Your task to perform on an android device: turn on priority inbox in the gmail app Image 0: 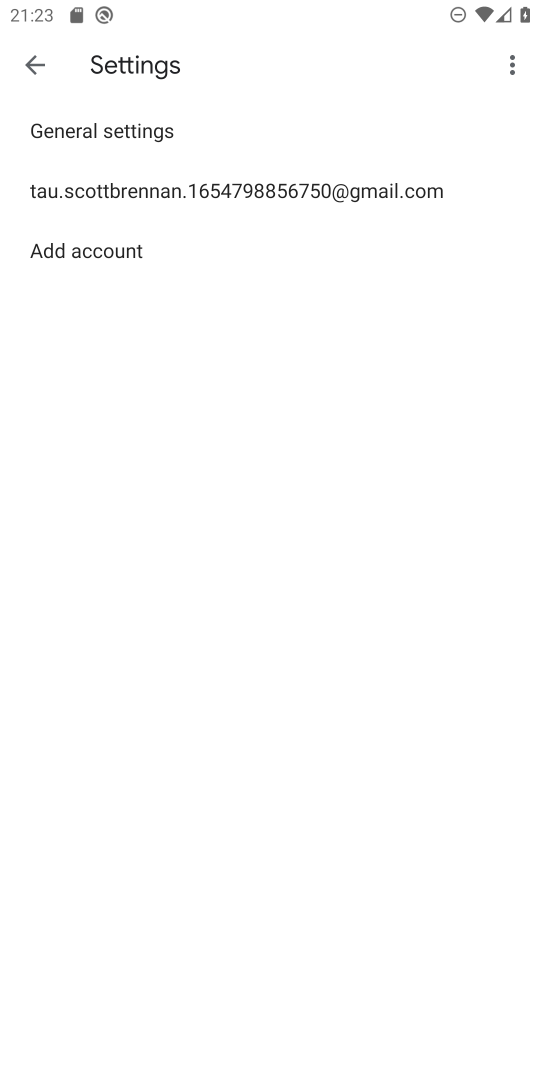
Step 0: press home button
Your task to perform on an android device: turn on priority inbox in the gmail app Image 1: 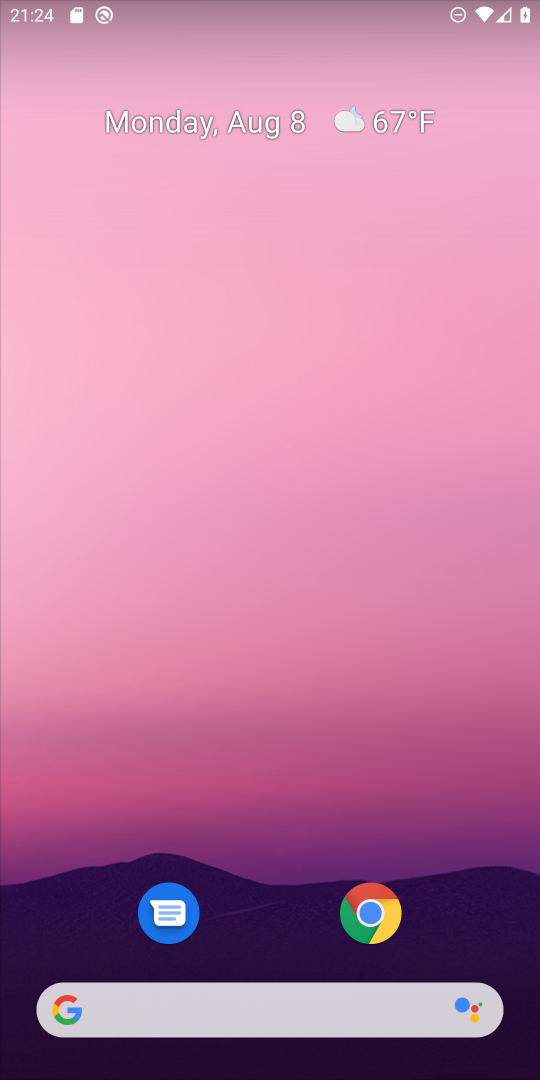
Step 1: drag from (243, 1006) to (313, 352)
Your task to perform on an android device: turn on priority inbox in the gmail app Image 2: 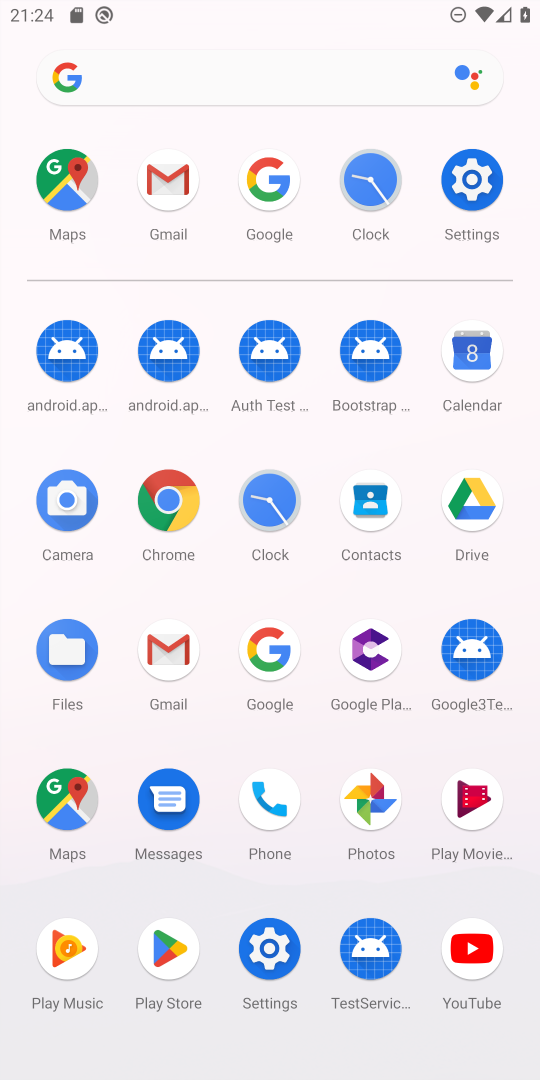
Step 2: click (166, 179)
Your task to perform on an android device: turn on priority inbox in the gmail app Image 3: 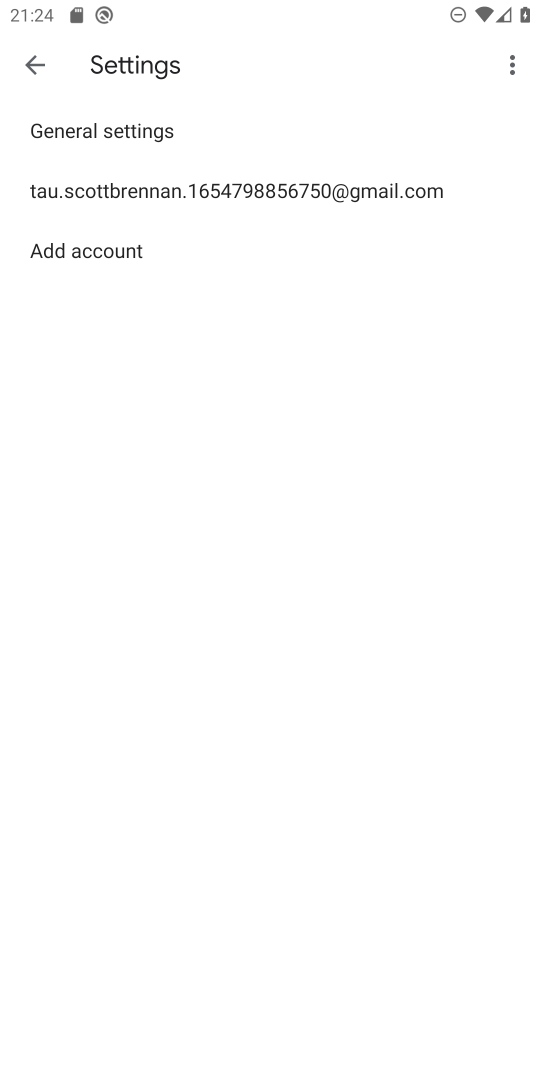
Step 3: click (164, 195)
Your task to perform on an android device: turn on priority inbox in the gmail app Image 4: 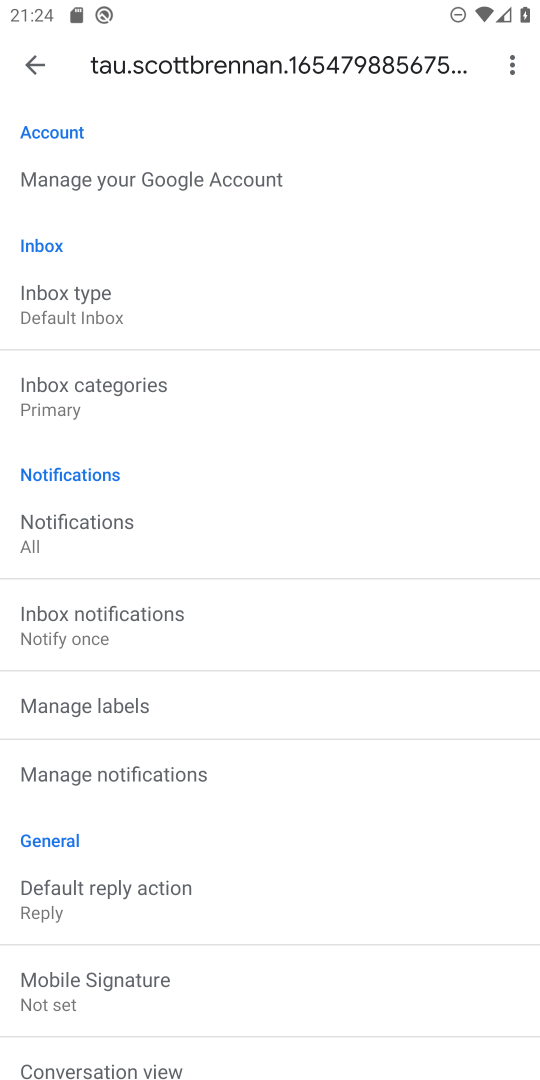
Step 4: drag from (175, 802) to (264, 673)
Your task to perform on an android device: turn on priority inbox in the gmail app Image 5: 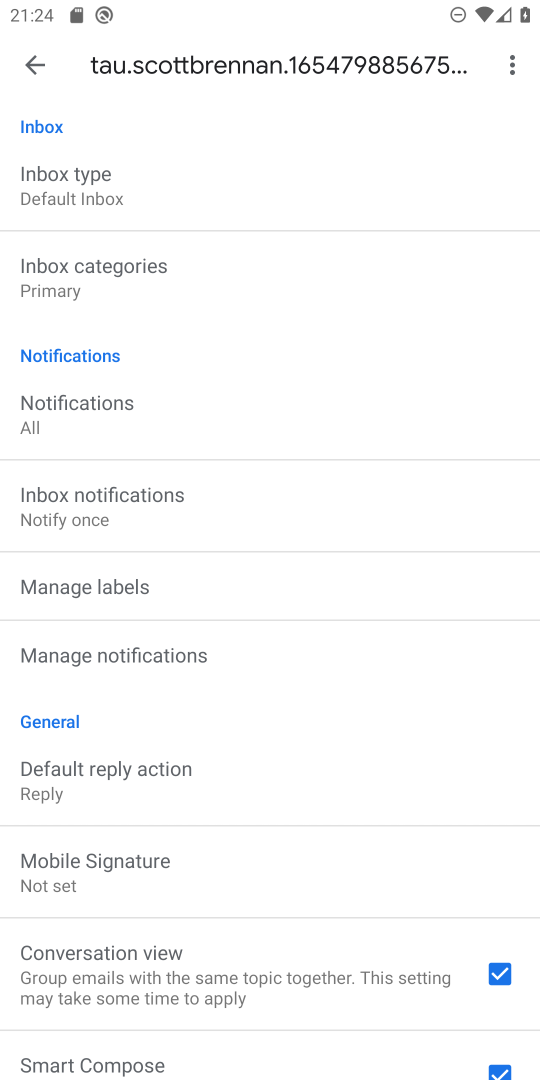
Step 5: drag from (180, 890) to (311, 721)
Your task to perform on an android device: turn on priority inbox in the gmail app Image 6: 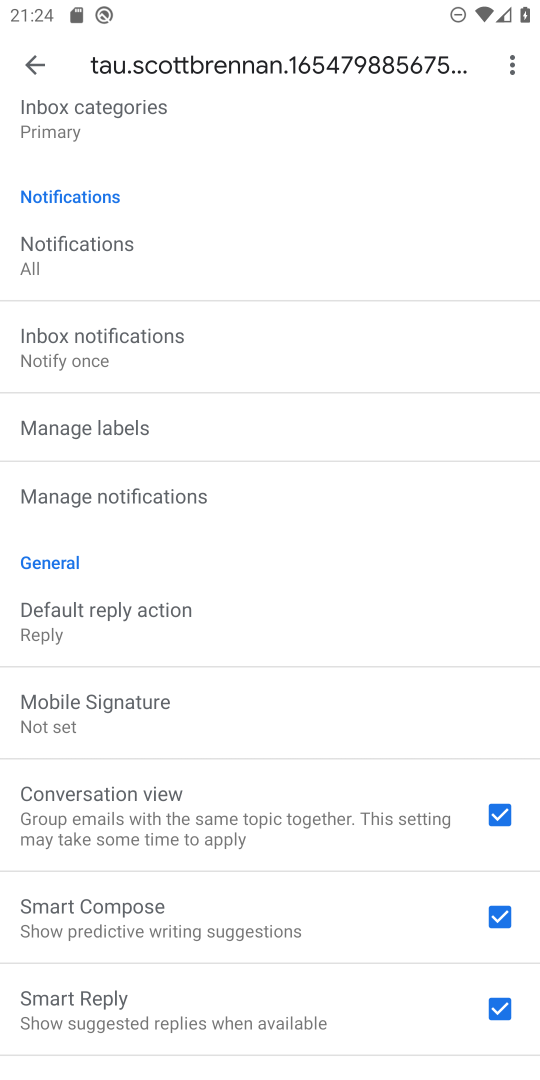
Step 6: drag from (233, 425) to (204, 670)
Your task to perform on an android device: turn on priority inbox in the gmail app Image 7: 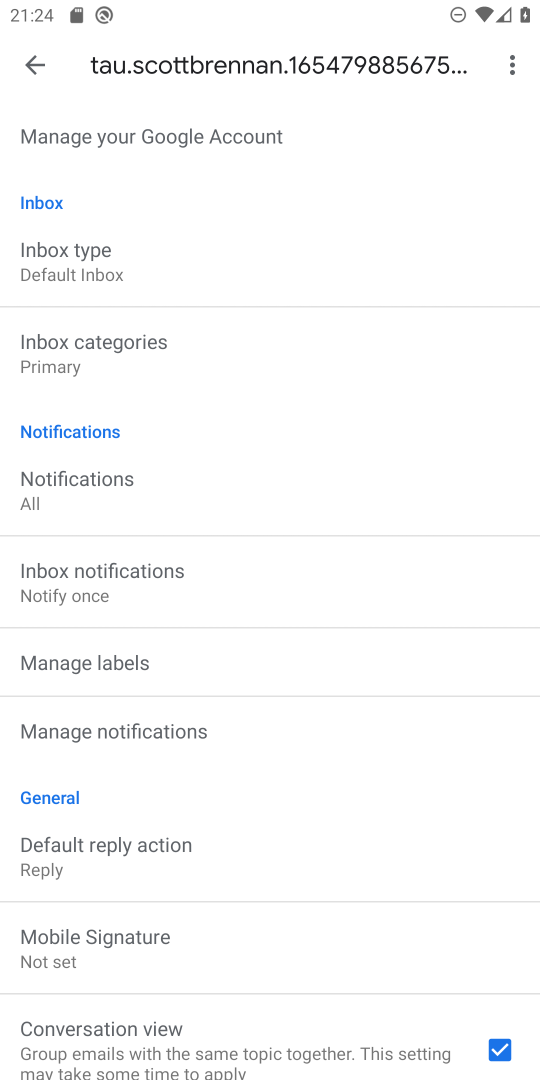
Step 7: click (86, 277)
Your task to perform on an android device: turn on priority inbox in the gmail app Image 8: 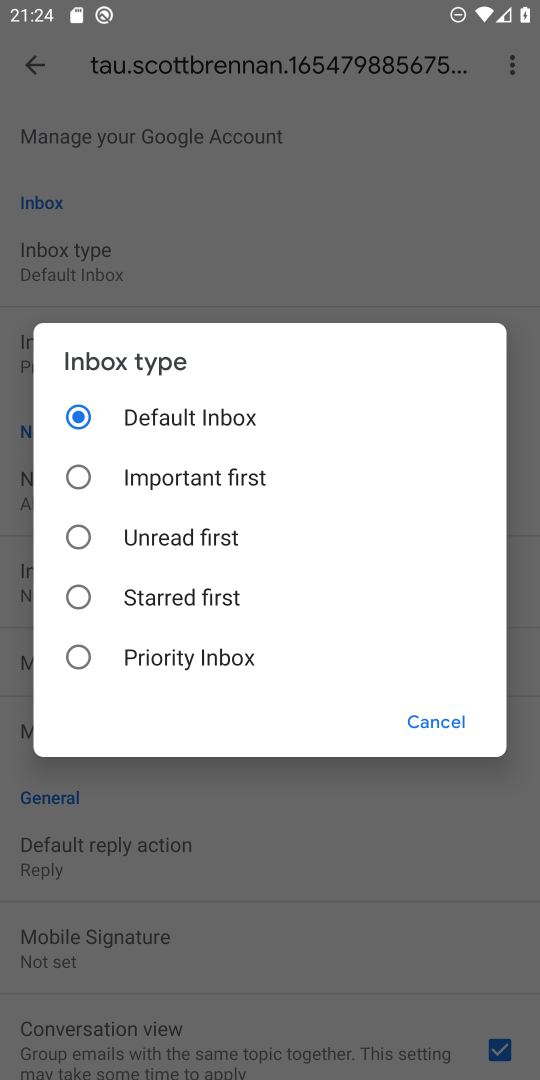
Step 8: click (77, 667)
Your task to perform on an android device: turn on priority inbox in the gmail app Image 9: 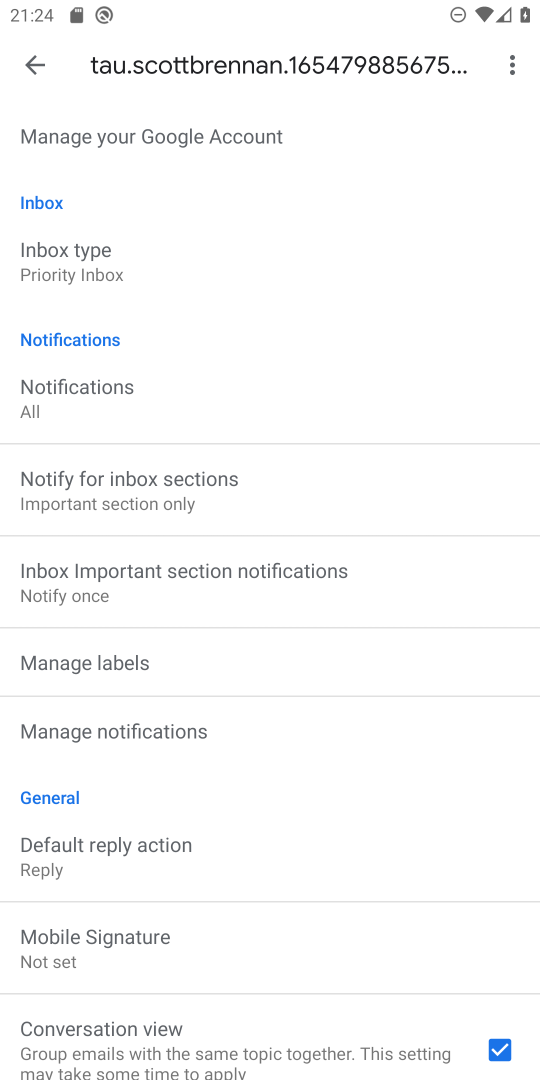
Step 9: task complete